Your task to perform on an android device: check storage Image 0: 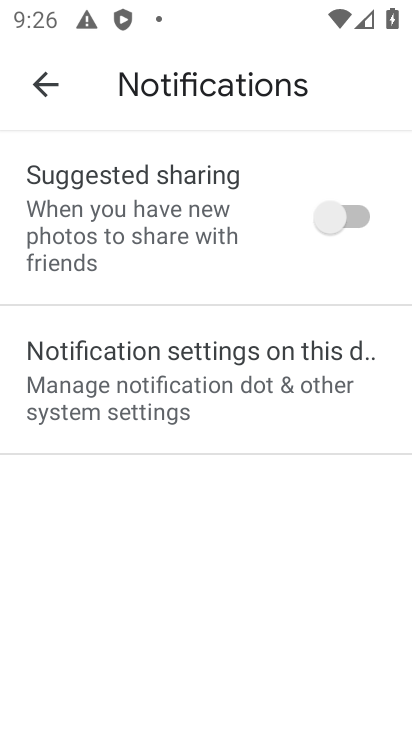
Step 0: press home button
Your task to perform on an android device: check storage Image 1: 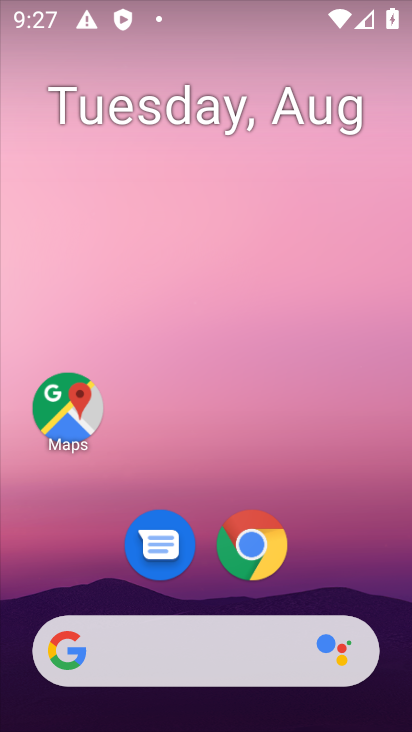
Step 1: drag from (110, 489) to (299, 100)
Your task to perform on an android device: check storage Image 2: 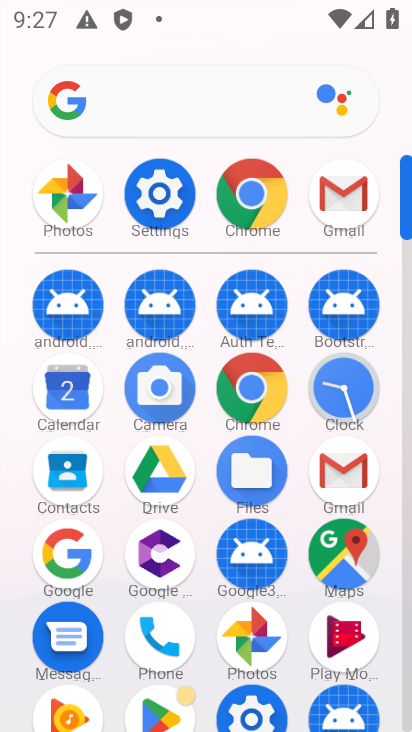
Step 2: click (172, 197)
Your task to perform on an android device: check storage Image 3: 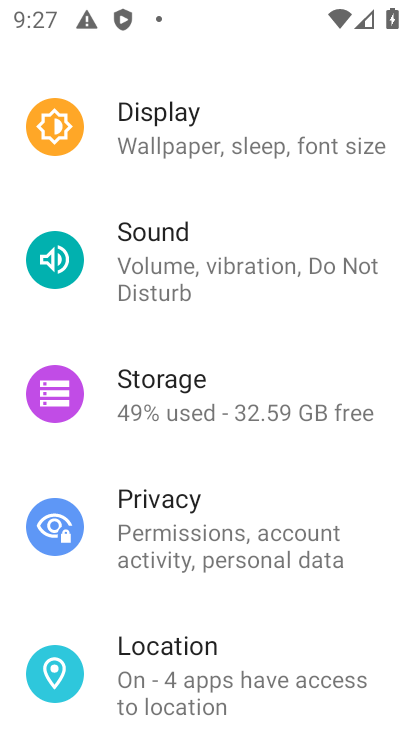
Step 3: click (150, 376)
Your task to perform on an android device: check storage Image 4: 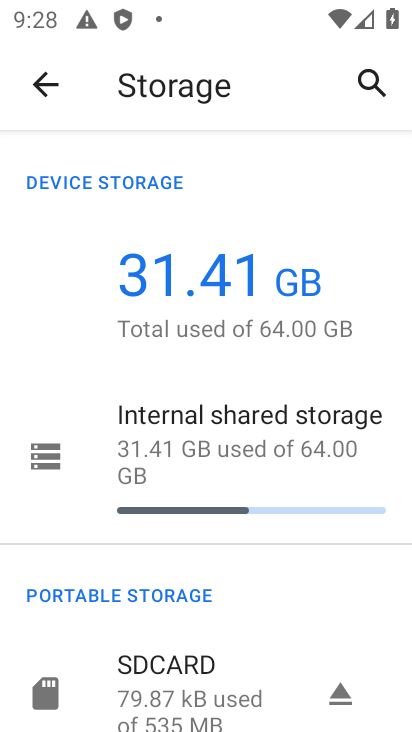
Step 4: task complete